Your task to perform on an android device: toggle priority inbox in the gmail app Image 0: 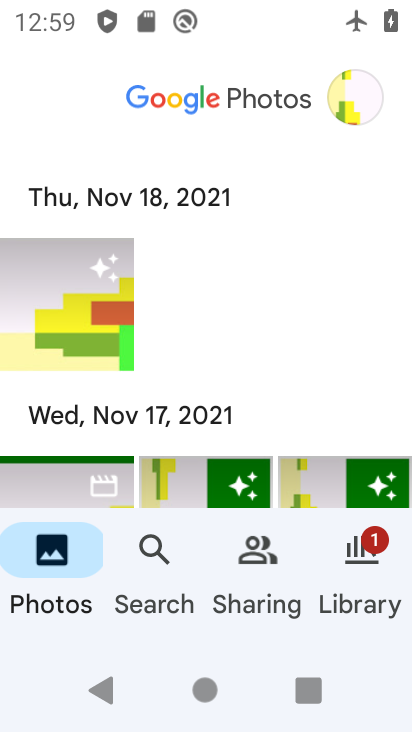
Step 0: press home button
Your task to perform on an android device: toggle priority inbox in the gmail app Image 1: 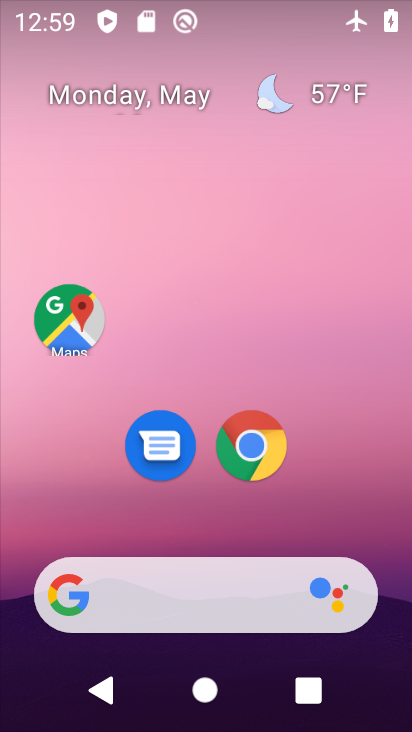
Step 1: drag from (387, 657) to (271, 130)
Your task to perform on an android device: toggle priority inbox in the gmail app Image 2: 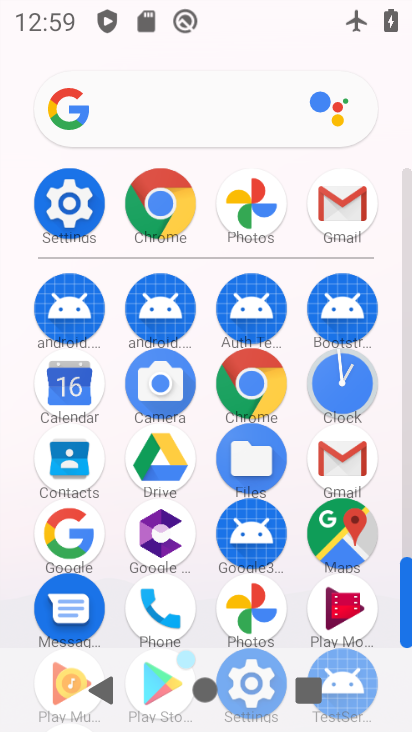
Step 2: click (347, 452)
Your task to perform on an android device: toggle priority inbox in the gmail app Image 3: 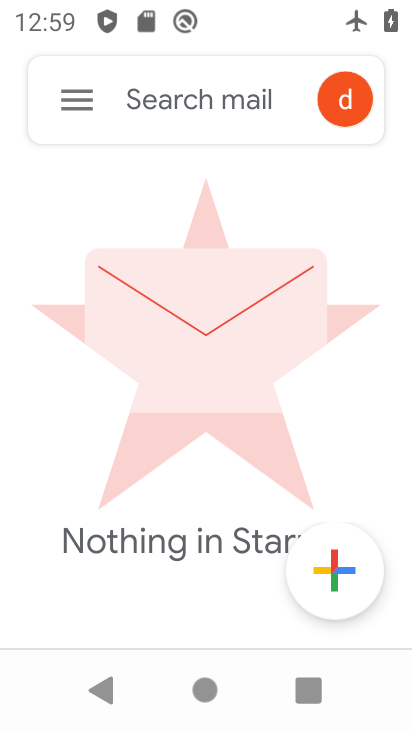
Step 3: click (54, 109)
Your task to perform on an android device: toggle priority inbox in the gmail app Image 4: 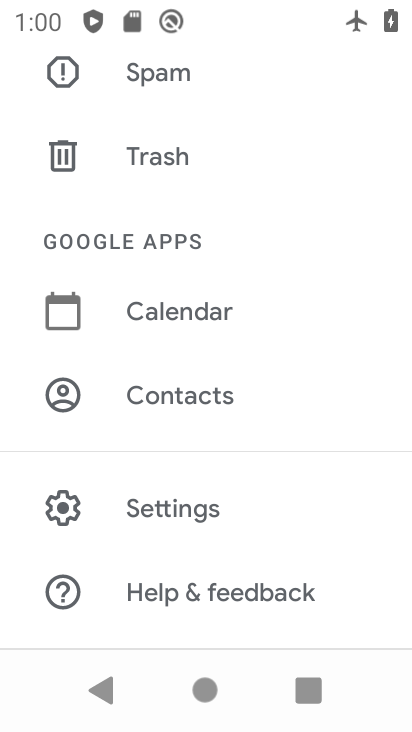
Step 4: click (293, 511)
Your task to perform on an android device: toggle priority inbox in the gmail app Image 5: 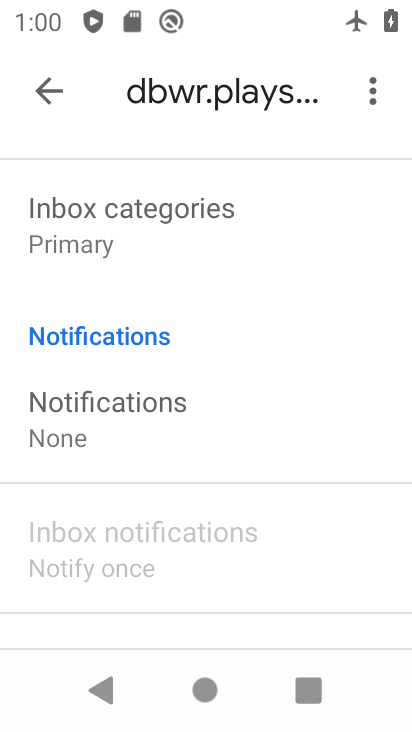
Step 5: drag from (188, 236) to (210, 509)
Your task to perform on an android device: toggle priority inbox in the gmail app Image 6: 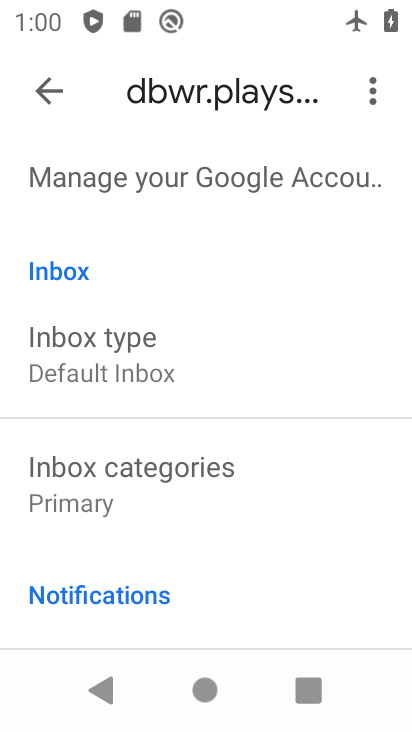
Step 6: click (154, 345)
Your task to perform on an android device: toggle priority inbox in the gmail app Image 7: 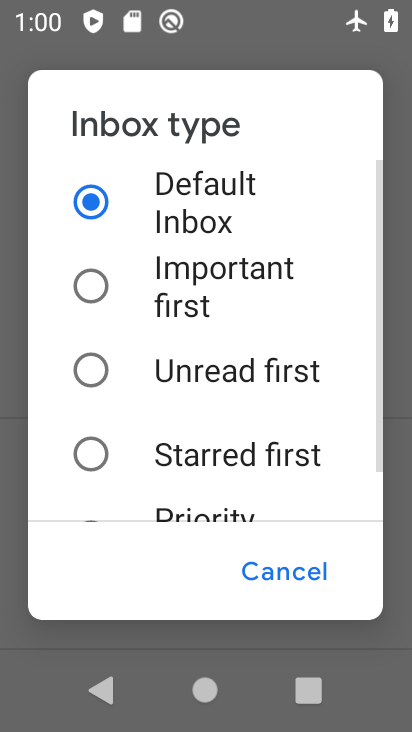
Step 7: click (137, 444)
Your task to perform on an android device: toggle priority inbox in the gmail app Image 8: 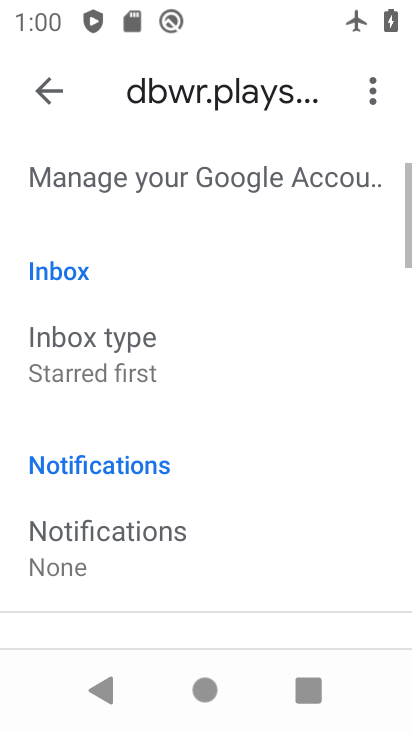
Step 8: task complete